Your task to perform on an android device: turn on location history Image 0: 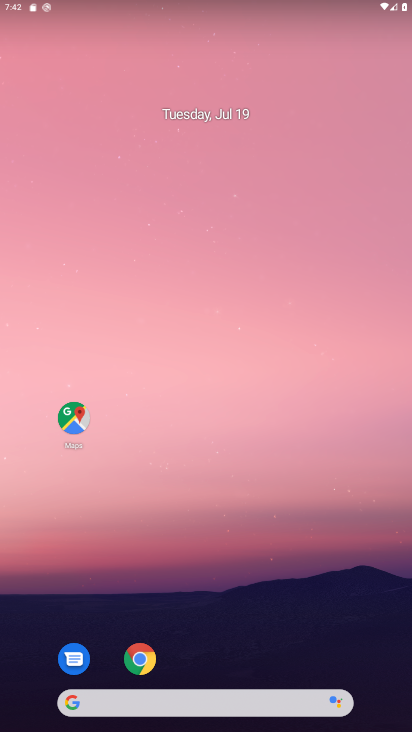
Step 0: drag from (275, 676) to (331, 18)
Your task to perform on an android device: turn on location history Image 1: 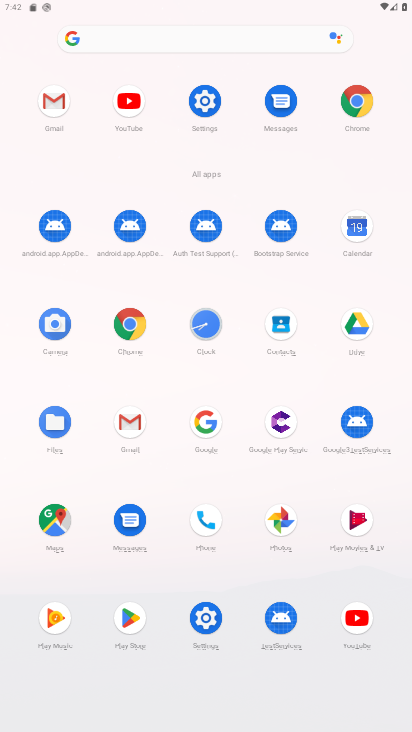
Step 1: click (211, 627)
Your task to perform on an android device: turn on location history Image 2: 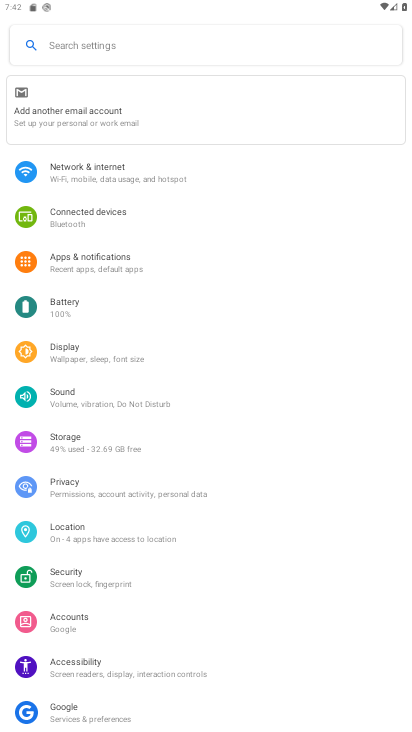
Step 2: drag from (96, 641) to (93, 493)
Your task to perform on an android device: turn on location history Image 3: 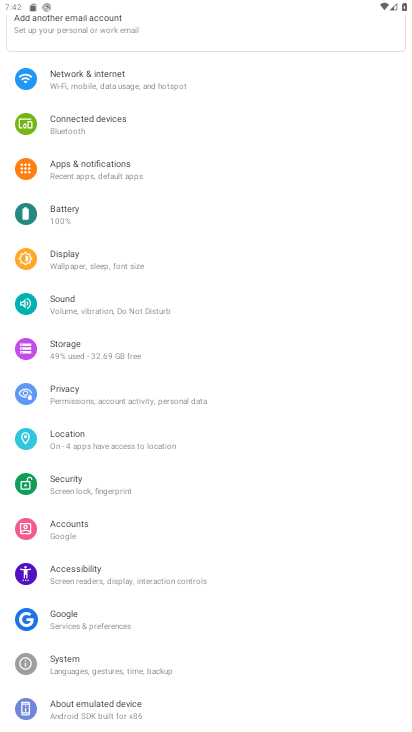
Step 3: click (79, 443)
Your task to perform on an android device: turn on location history Image 4: 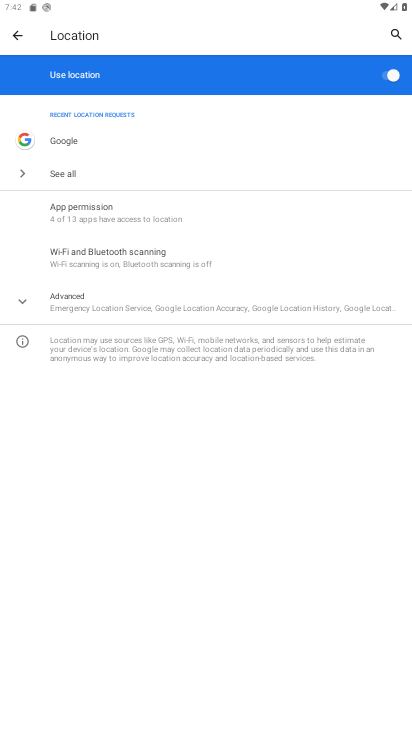
Step 4: click (108, 313)
Your task to perform on an android device: turn on location history Image 5: 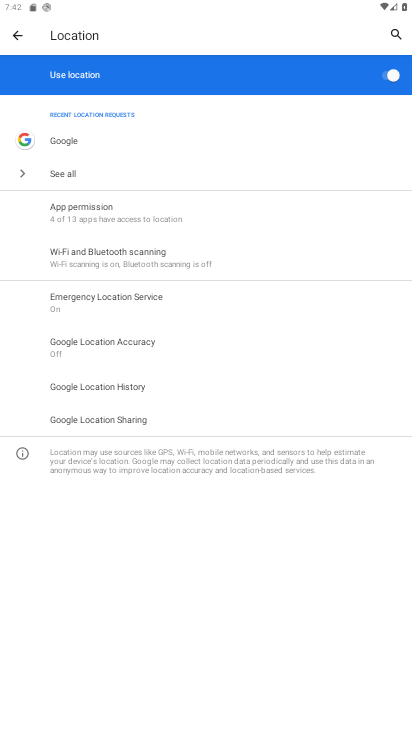
Step 5: click (110, 391)
Your task to perform on an android device: turn on location history Image 6: 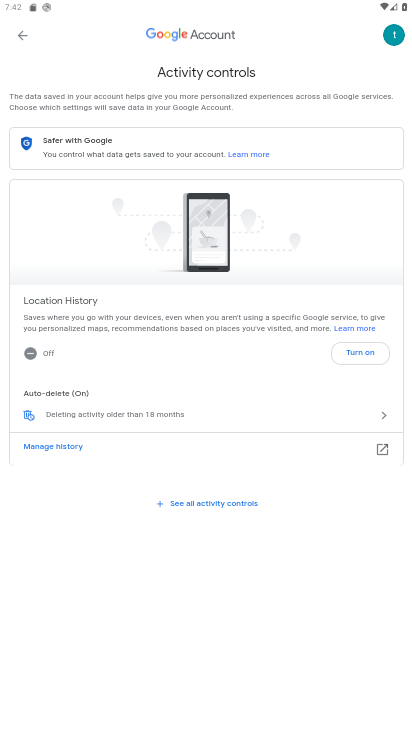
Step 6: click (366, 352)
Your task to perform on an android device: turn on location history Image 7: 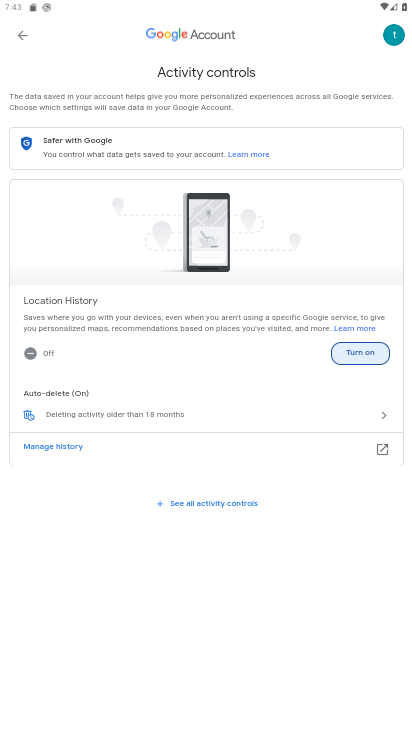
Step 7: click (355, 358)
Your task to perform on an android device: turn on location history Image 8: 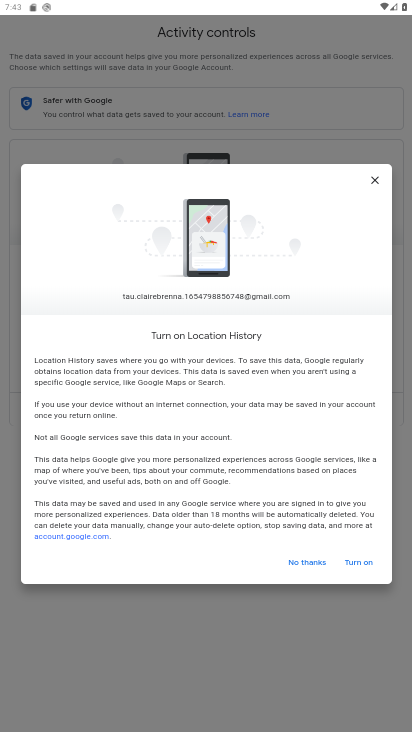
Step 8: click (361, 562)
Your task to perform on an android device: turn on location history Image 9: 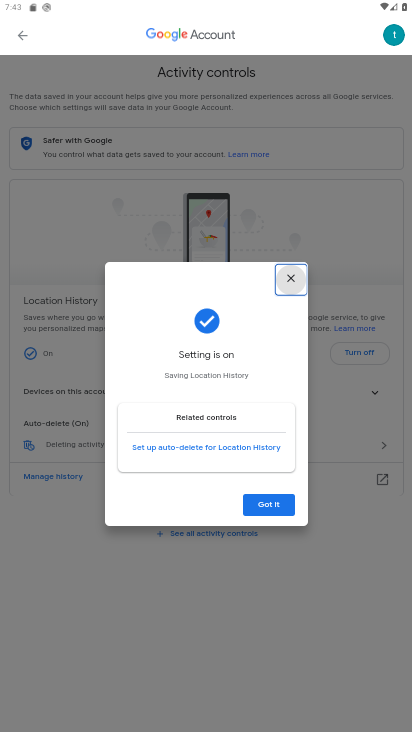
Step 9: click (269, 502)
Your task to perform on an android device: turn on location history Image 10: 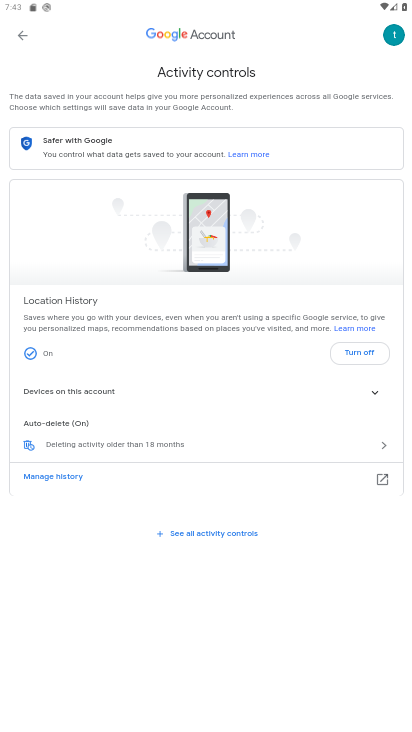
Step 10: task complete